Your task to perform on an android device: make emails show in primary in the gmail app Image 0: 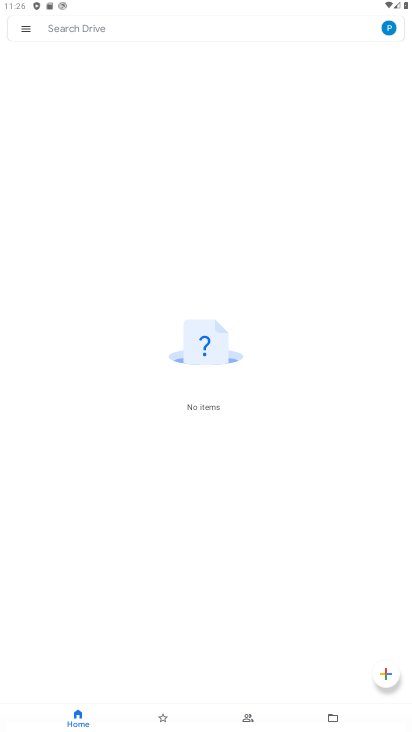
Step 0: press home button
Your task to perform on an android device: make emails show in primary in the gmail app Image 1: 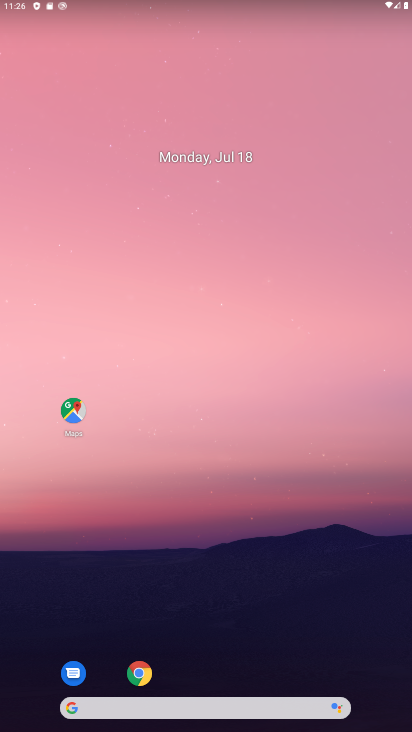
Step 1: drag from (281, 641) to (172, 160)
Your task to perform on an android device: make emails show in primary in the gmail app Image 2: 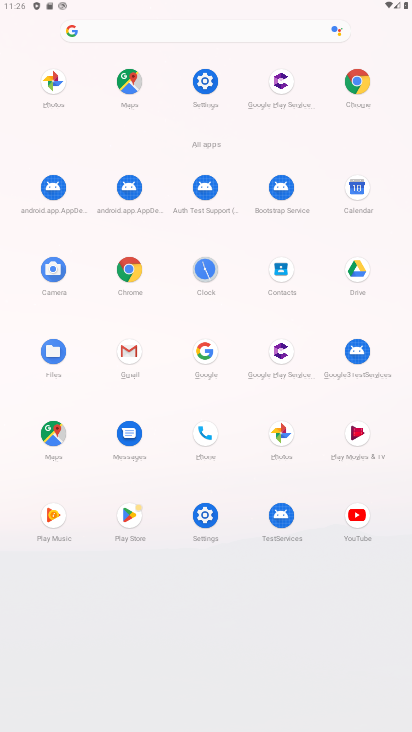
Step 2: click (130, 350)
Your task to perform on an android device: make emails show in primary in the gmail app Image 3: 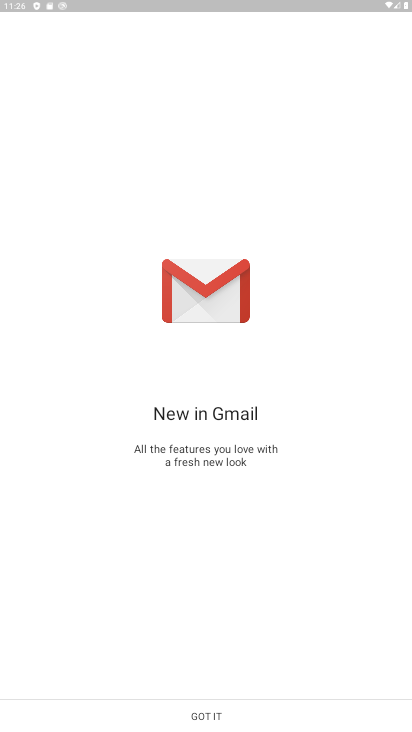
Step 3: click (255, 718)
Your task to perform on an android device: make emails show in primary in the gmail app Image 4: 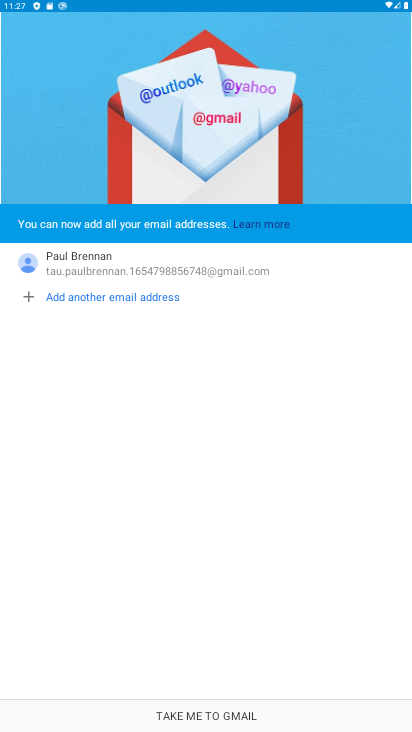
Step 4: click (255, 718)
Your task to perform on an android device: make emails show in primary in the gmail app Image 5: 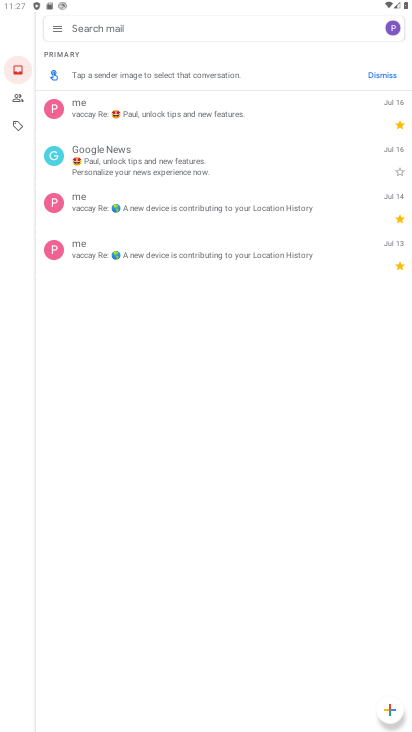
Step 5: click (52, 32)
Your task to perform on an android device: make emails show in primary in the gmail app Image 6: 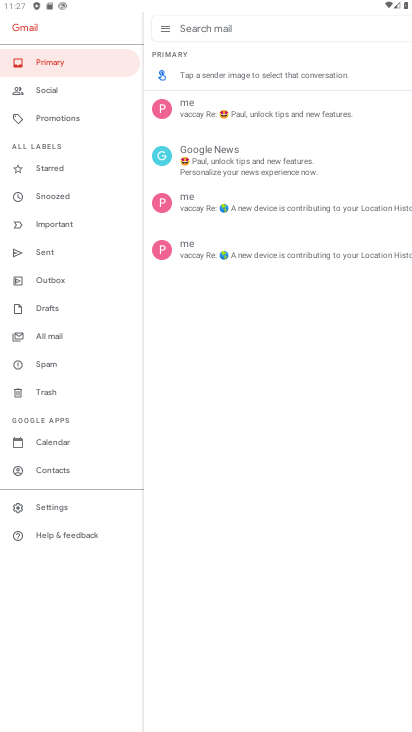
Step 6: click (51, 511)
Your task to perform on an android device: make emails show in primary in the gmail app Image 7: 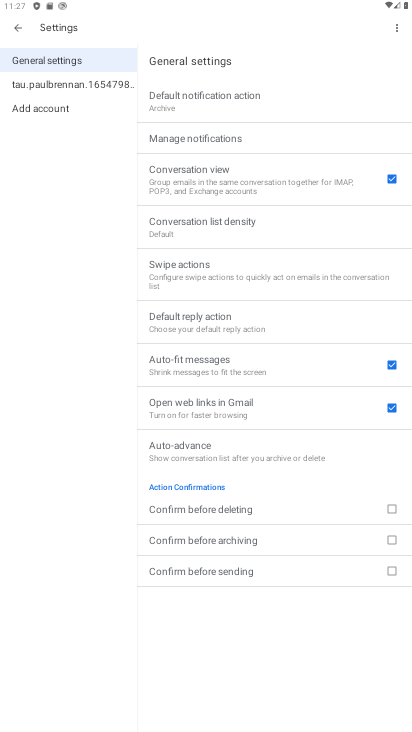
Step 7: click (124, 83)
Your task to perform on an android device: make emails show in primary in the gmail app Image 8: 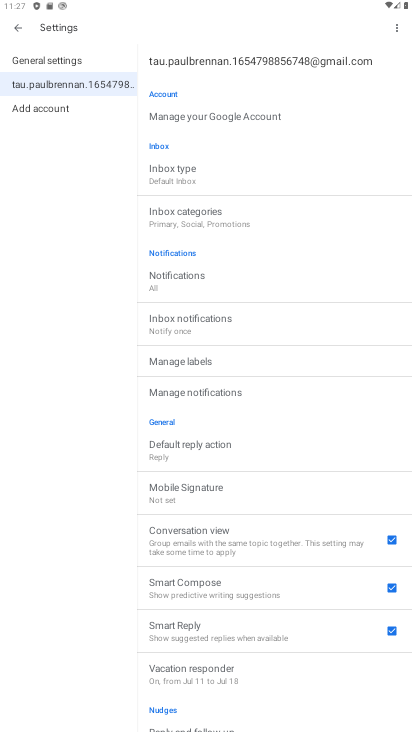
Step 8: click (248, 178)
Your task to perform on an android device: make emails show in primary in the gmail app Image 9: 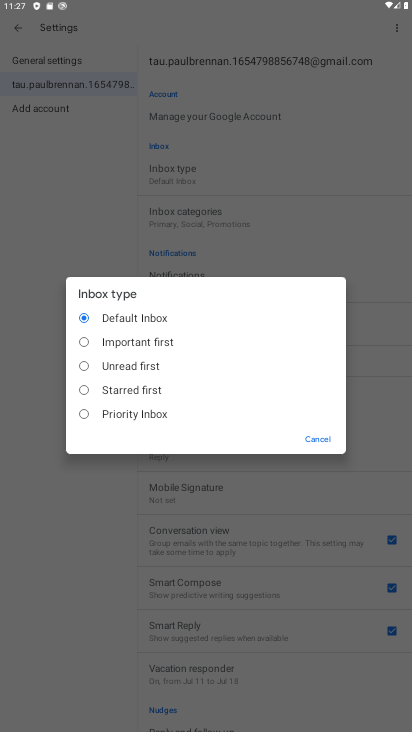
Step 9: click (319, 437)
Your task to perform on an android device: make emails show in primary in the gmail app Image 10: 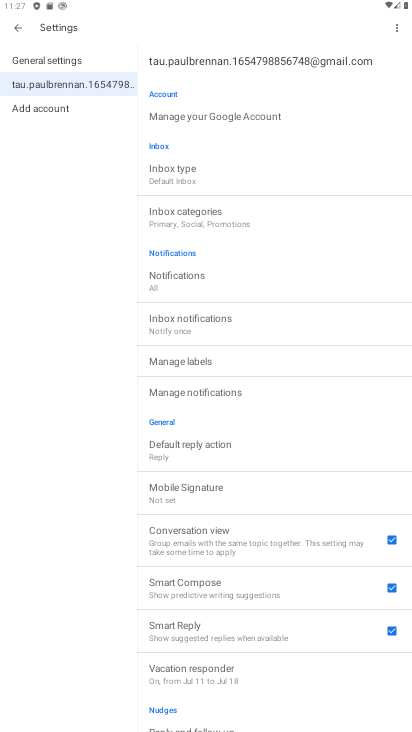
Step 10: click (201, 217)
Your task to perform on an android device: make emails show in primary in the gmail app Image 11: 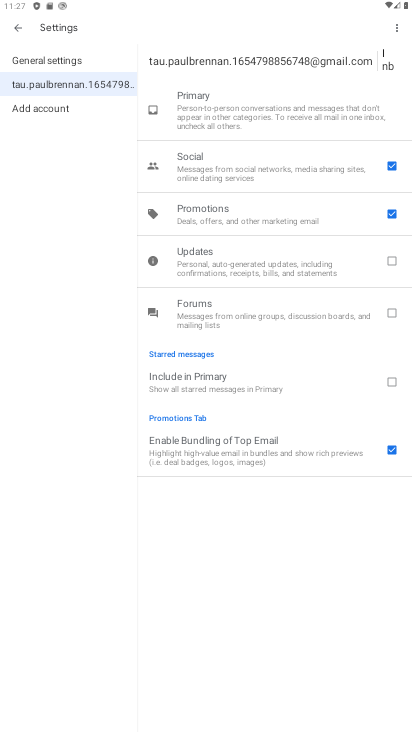
Step 11: click (391, 168)
Your task to perform on an android device: make emails show in primary in the gmail app Image 12: 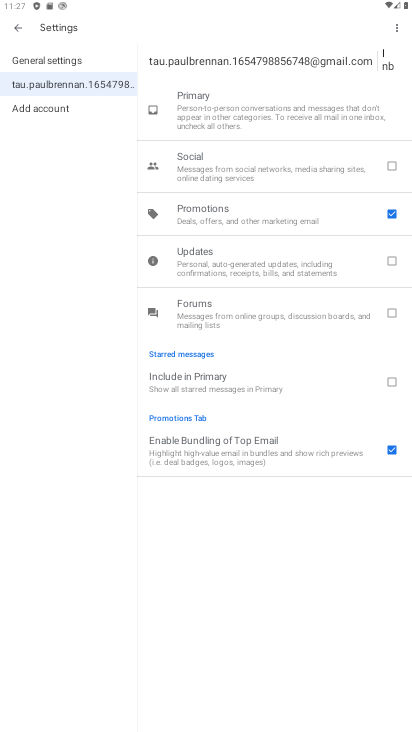
Step 12: click (393, 217)
Your task to perform on an android device: make emails show in primary in the gmail app Image 13: 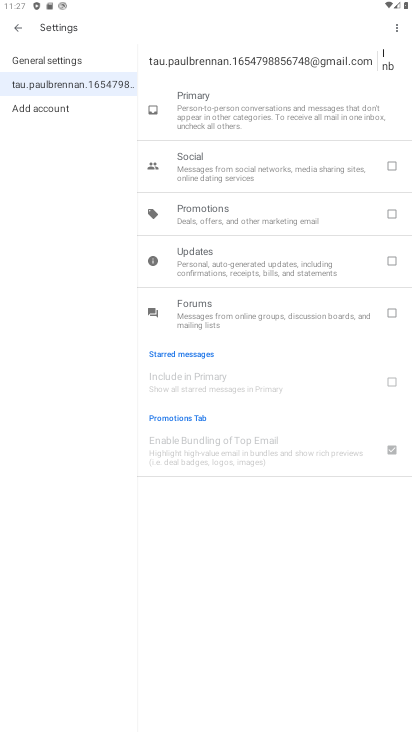
Step 13: task complete